Your task to perform on an android device: open wifi settings Image 0: 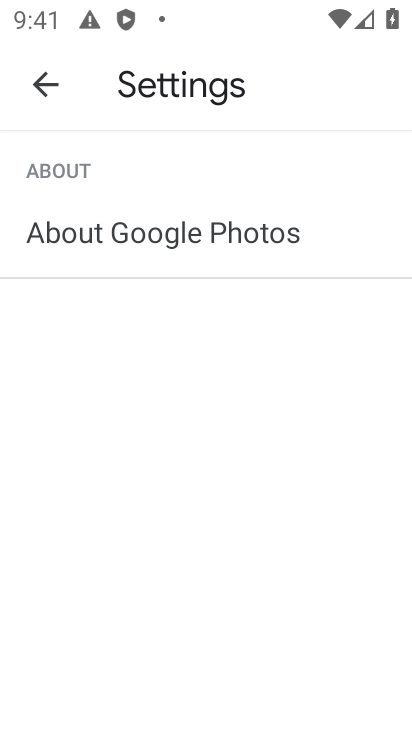
Step 0: press back button
Your task to perform on an android device: open wifi settings Image 1: 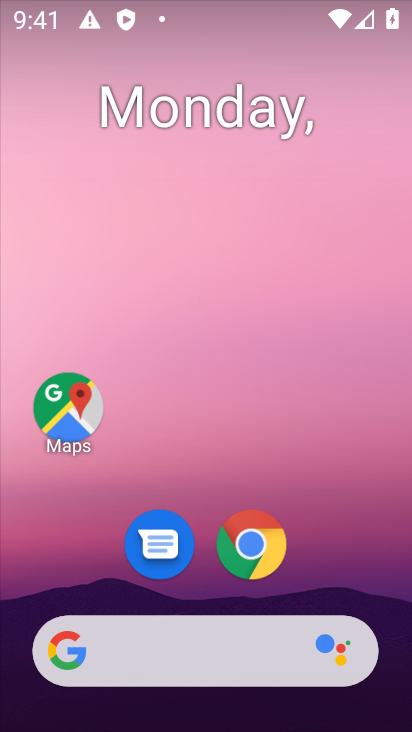
Step 1: press home button
Your task to perform on an android device: open wifi settings Image 2: 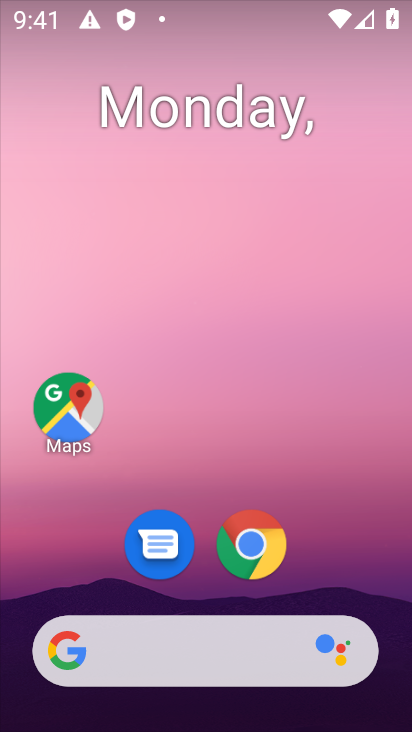
Step 2: drag from (157, 646) to (207, 68)
Your task to perform on an android device: open wifi settings Image 3: 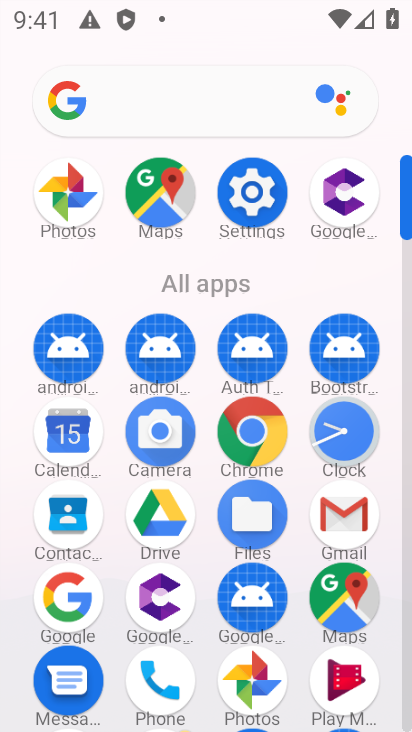
Step 3: click (265, 188)
Your task to perform on an android device: open wifi settings Image 4: 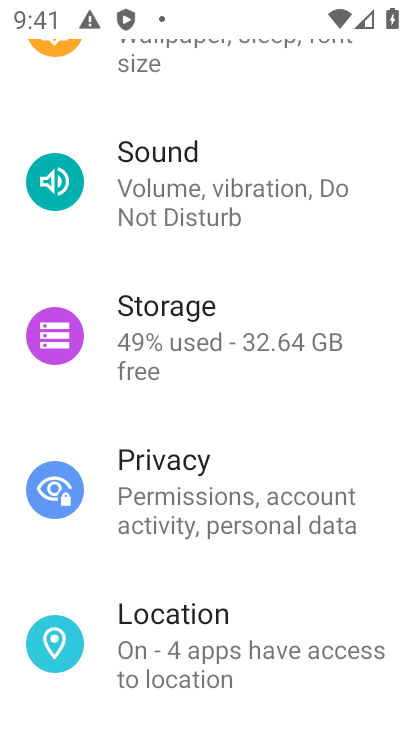
Step 4: drag from (206, 146) to (163, 700)
Your task to perform on an android device: open wifi settings Image 5: 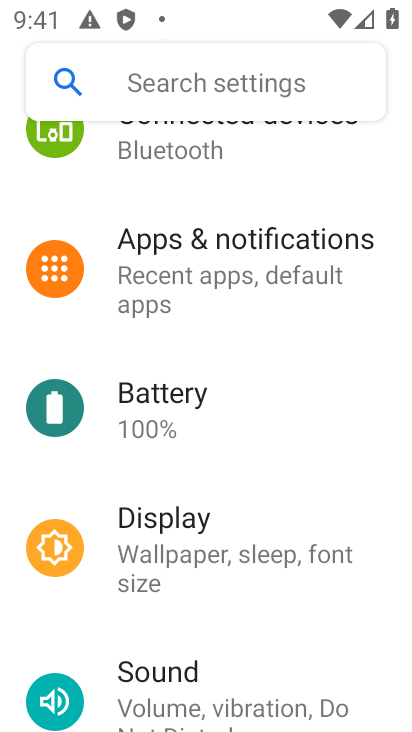
Step 5: drag from (175, 347) to (227, 662)
Your task to perform on an android device: open wifi settings Image 6: 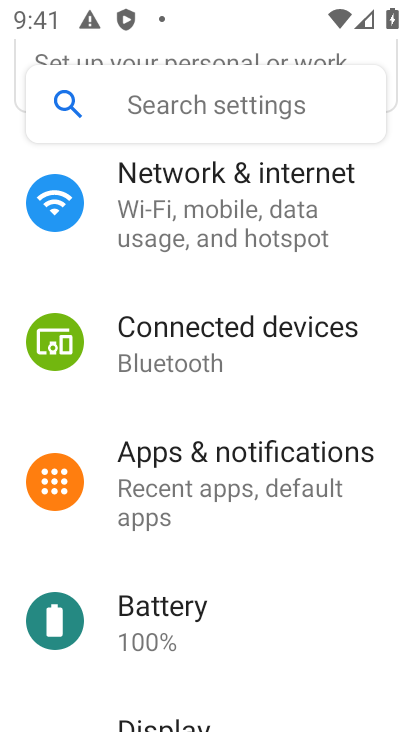
Step 6: click (195, 227)
Your task to perform on an android device: open wifi settings Image 7: 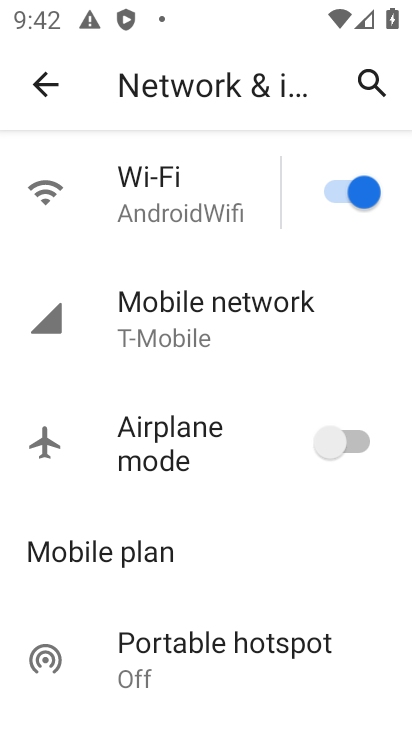
Step 7: click (174, 207)
Your task to perform on an android device: open wifi settings Image 8: 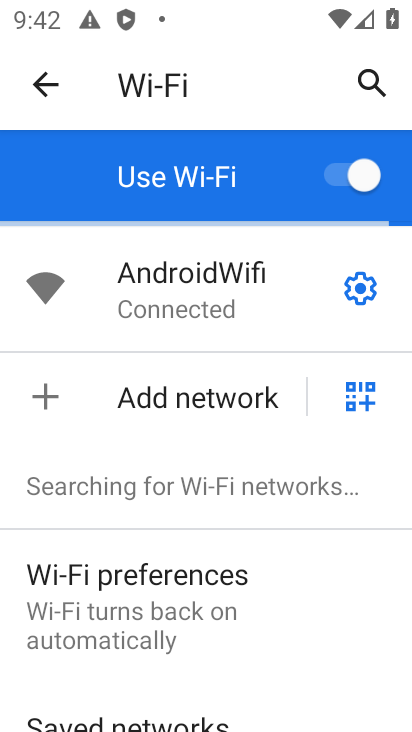
Step 8: task complete